Your task to perform on an android device: toggle show notifications on the lock screen Image 0: 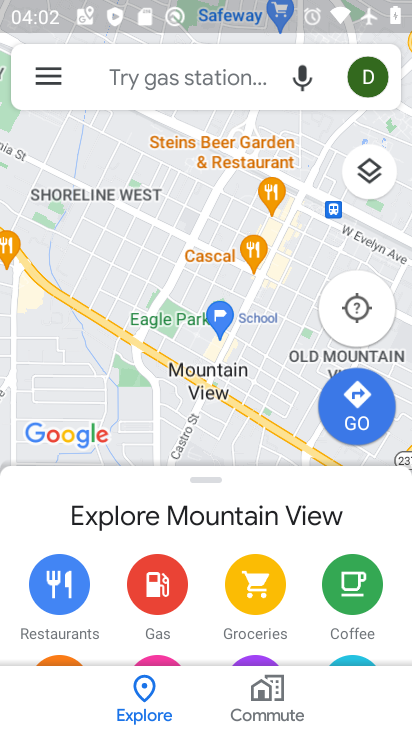
Step 0: press home button
Your task to perform on an android device: toggle show notifications on the lock screen Image 1: 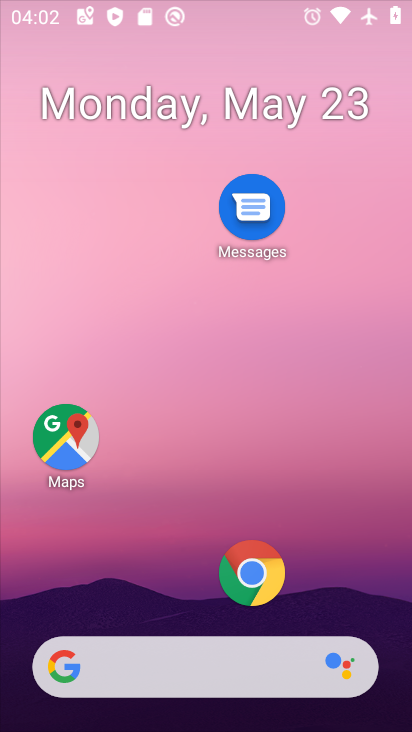
Step 1: drag from (166, 657) to (201, 73)
Your task to perform on an android device: toggle show notifications on the lock screen Image 2: 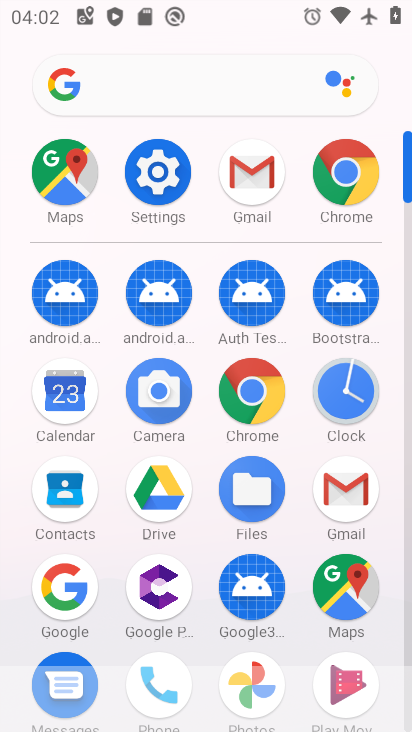
Step 2: click (151, 175)
Your task to perform on an android device: toggle show notifications on the lock screen Image 3: 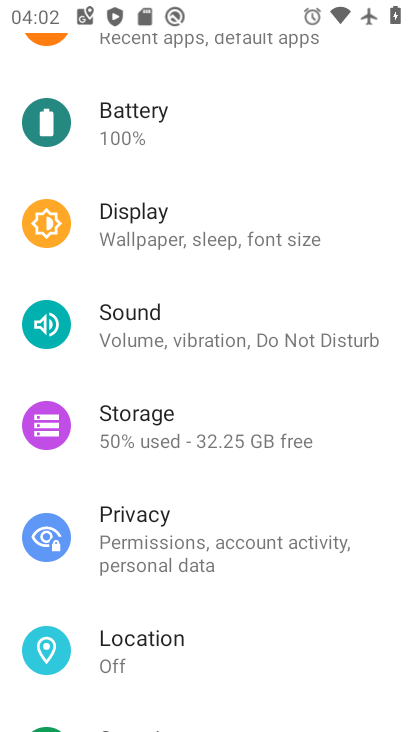
Step 3: drag from (147, 165) to (172, 682)
Your task to perform on an android device: toggle show notifications on the lock screen Image 4: 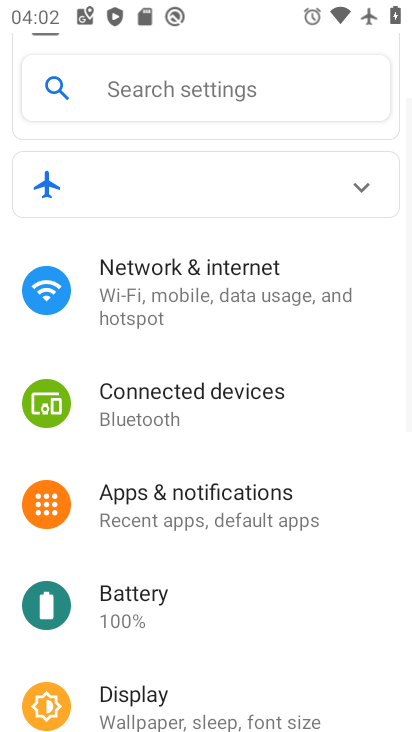
Step 4: click (184, 463)
Your task to perform on an android device: toggle show notifications on the lock screen Image 5: 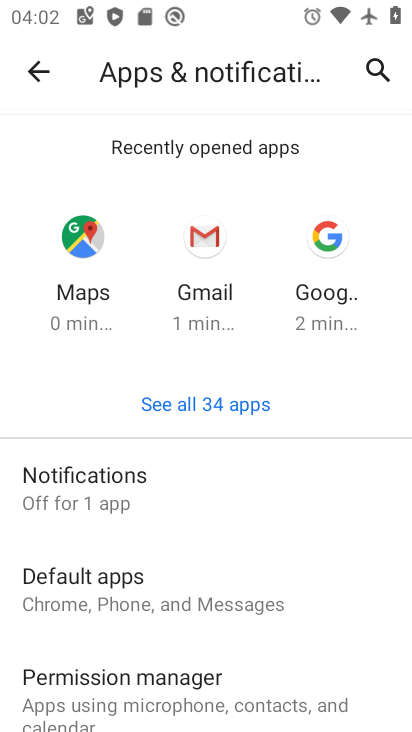
Step 5: click (139, 483)
Your task to perform on an android device: toggle show notifications on the lock screen Image 6: 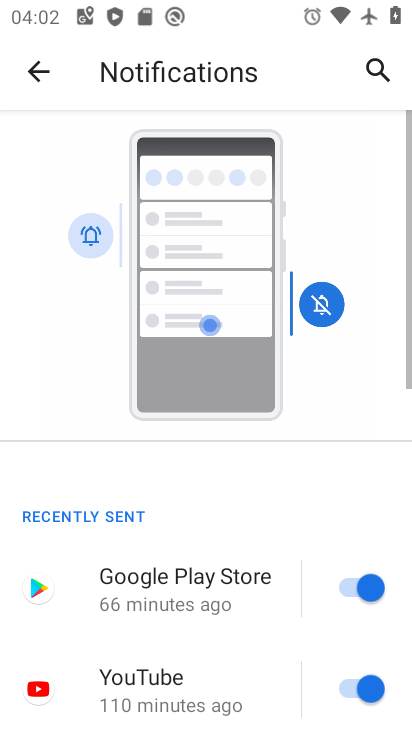
Step 6: drag from (222, 687) to (292, 15)
Your task to perform on an android device: toggle show notifications on the lock screen Image 7: 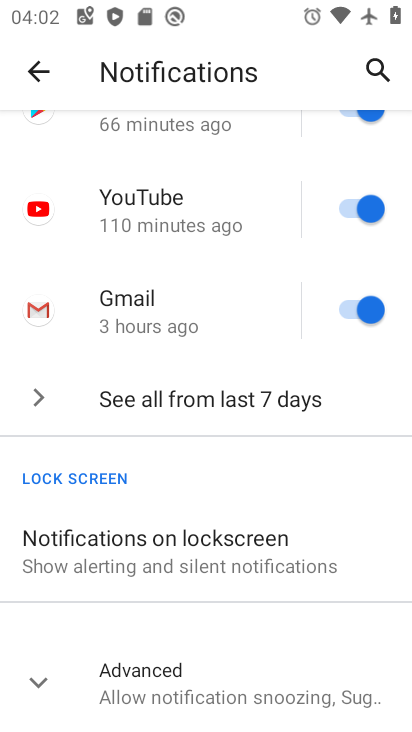
Step 7: click (231, 544)
Your task to perform on an android device: toggle show notifications on the lock screen Image 8: 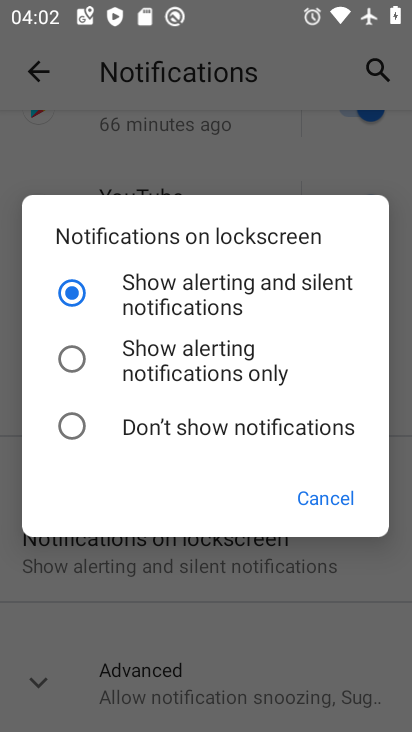
Step 8: click (61, 368)
Your task to perform on an android device: toggle show notifications on the lock screen Image 9: 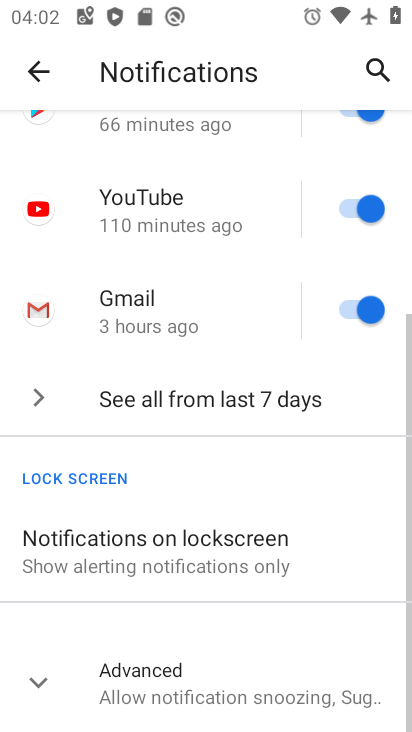
Step 9: task complete